Your task to perform on an android device: Open my contact list Image 0: 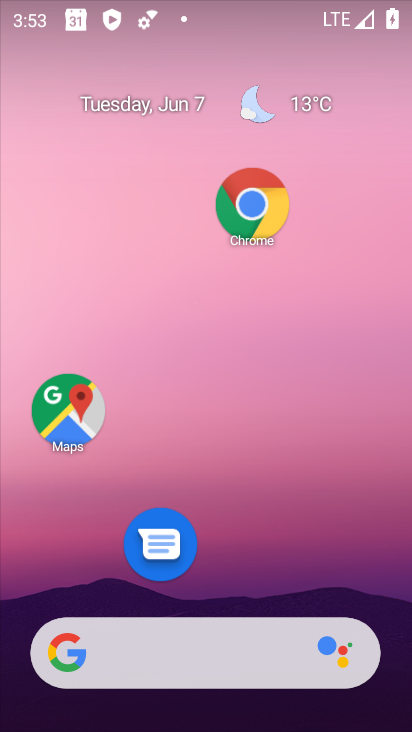
Step 0: drag from (204, 589) to (236, 99)
Your task to perform on an android device: Open my contact list Image 1: 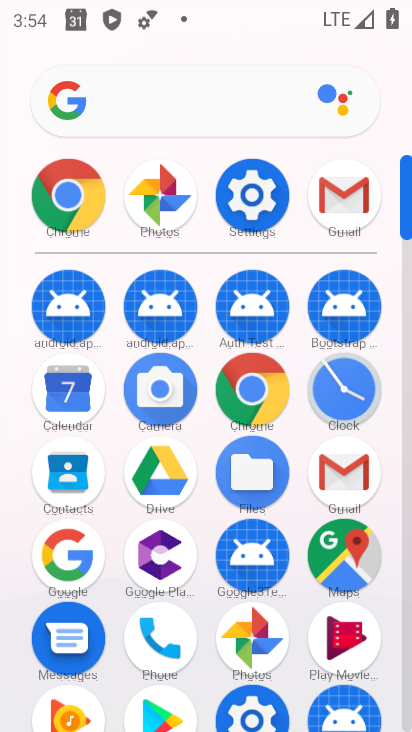
Step 1: click (69, 467)
Your task to perform on an android device: Open my contact list Image 2: 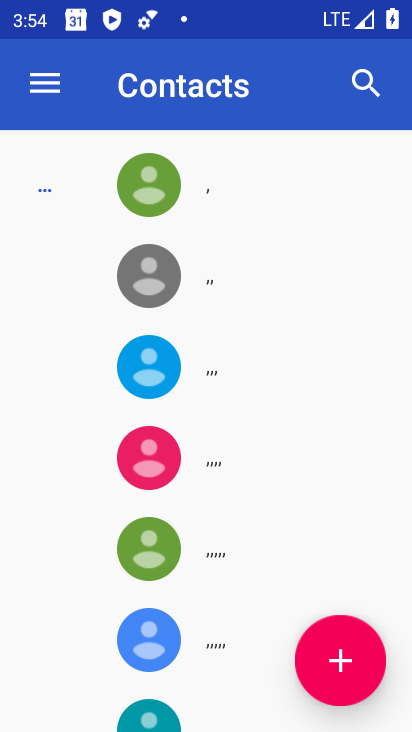
Step 2: task complete